Your task to perform on an android device: What's the weather going to be this weekend? Image 0: 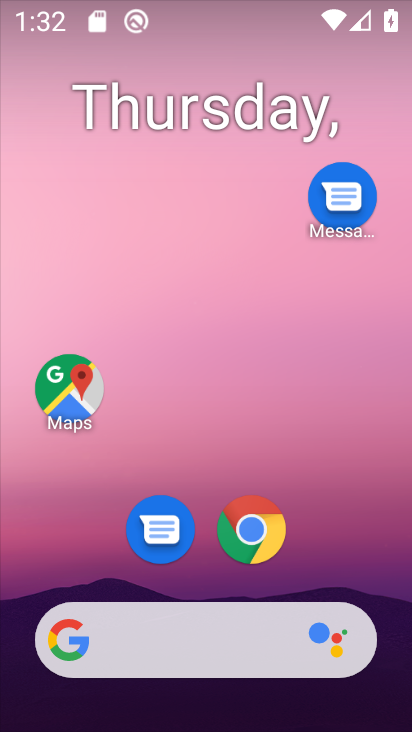
Step 0: drag from (328, 542) to (279, 122)
Your task to perform on an android device: What's the weather going to be this weekend? Image 1: 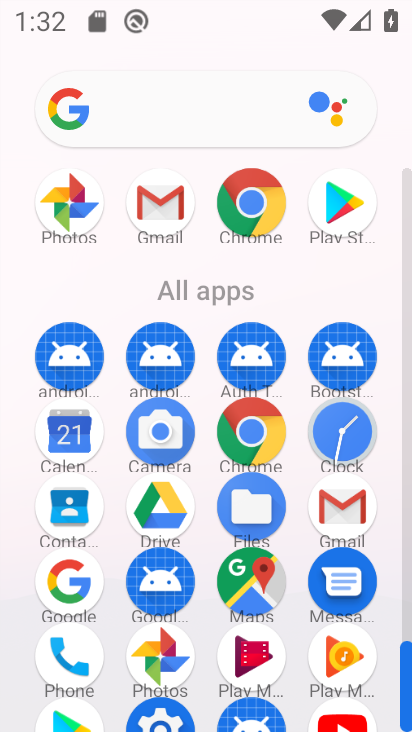
Step 1: click (254, 426)
Your task to perform on an android device: What's the weather going to be this weekend? Image 2: 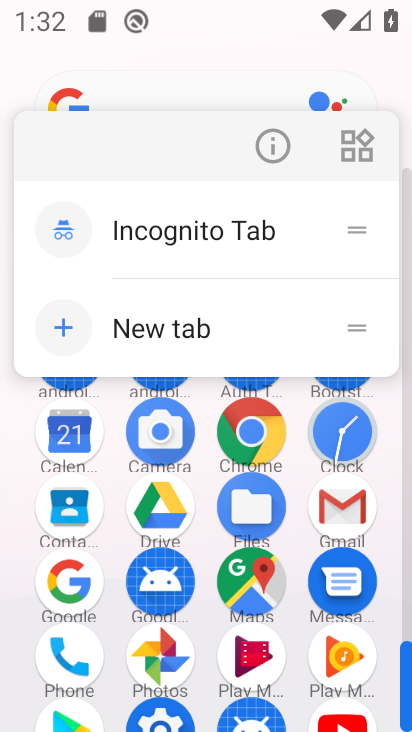
Step 2: click (272, 443)
Your task to perform on an android device: What's the weather going to be this weekend? Image 3: 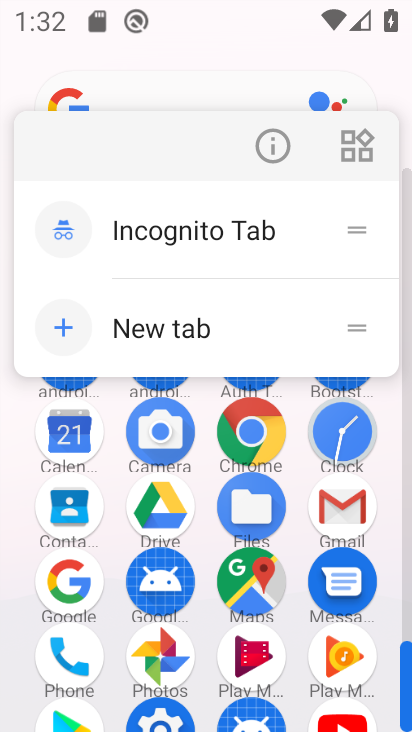
Step 3: click (243, 450)
Your task to perform on an android device: What's the weather going to be this weekend? Image 4: 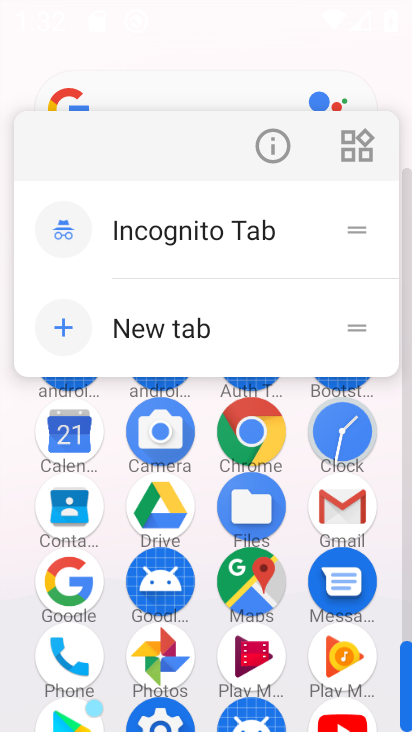
Step 4: click (244, 444)
Your task to perform on an android device: What's the weather going to be this weekend? Image 5: 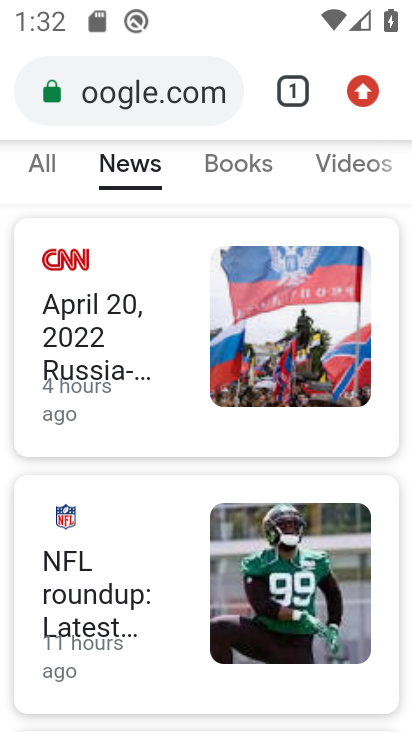
Step 5: click (160, 83)
Your task to perform on an android device: What's the weather going to be this weekend? Image 6: 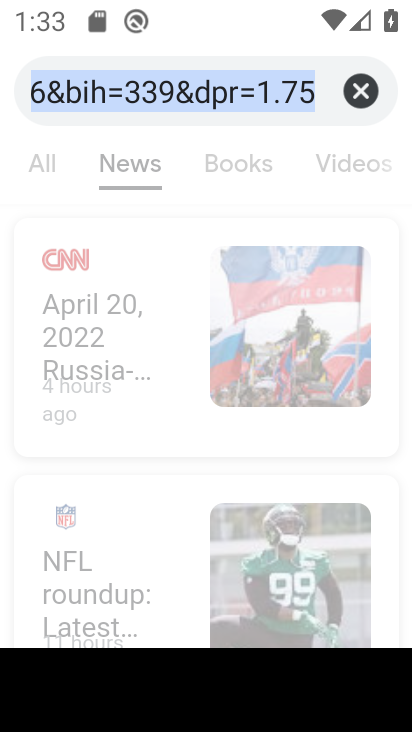
Step 6: type "weather"
Your task to perform on an android device: What's the weather going to be this weekend? Image 7: 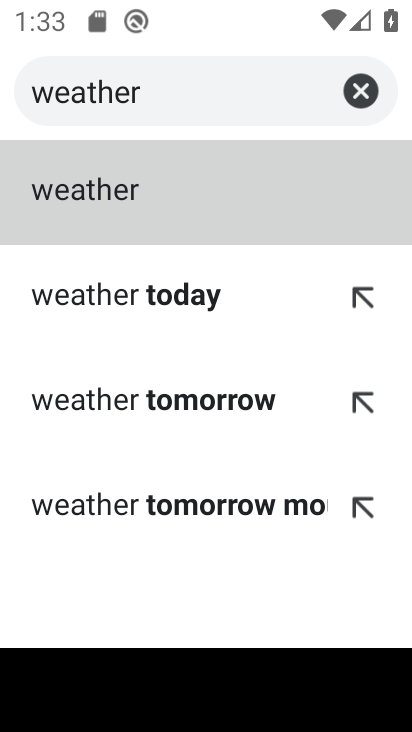
Step 7: click (116, 192)
Your task to perform on an android device: What's the weather going to be this weekend? Image 8: 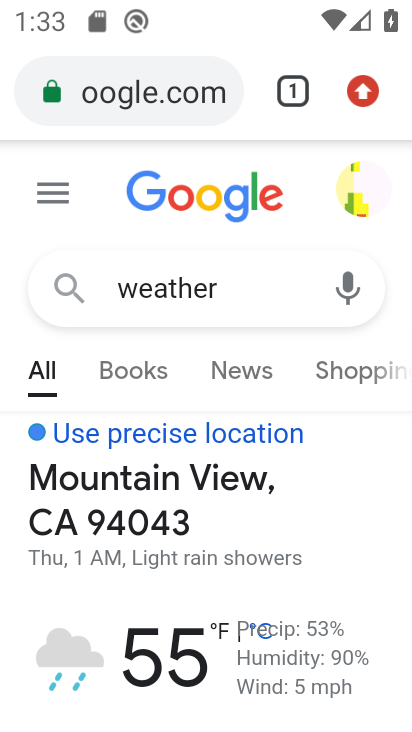
Step 8: task complete